Your task to perform on an android device: Show me popular games on the Play Store Image 0: 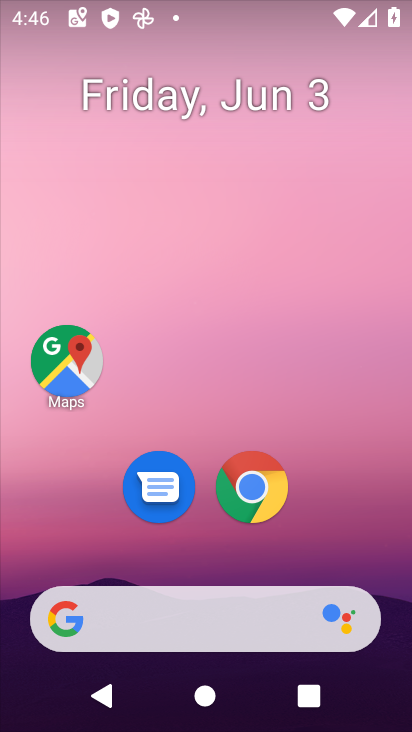
Step 0: click (288, 105)
Your task to perform on an android device: Show me popular games on the Play Store Image 1: 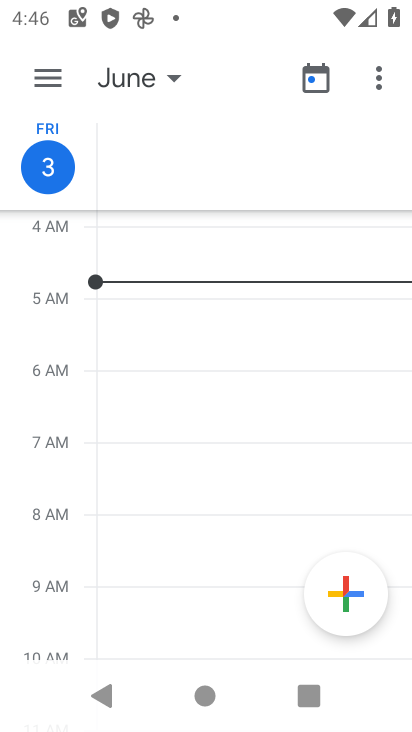
Step 1: press home button
Your task to perform on an android device: Show me popular games on the Play Store Image 2: 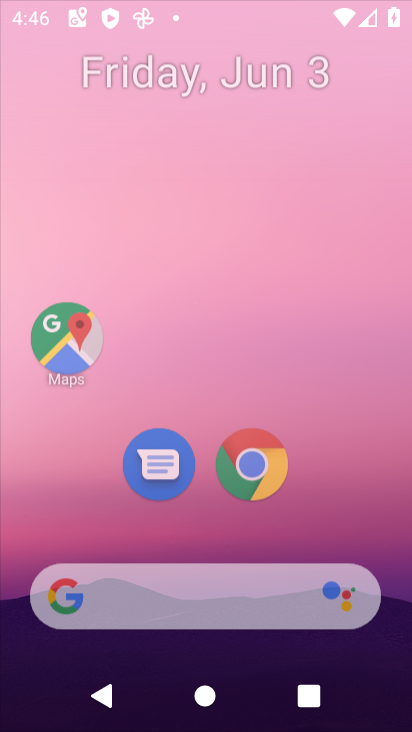
Step 2: drag from (219, 539) to (300, 63)
Your task to perform on an android device: Show me popular games on the Play Store Image 3: 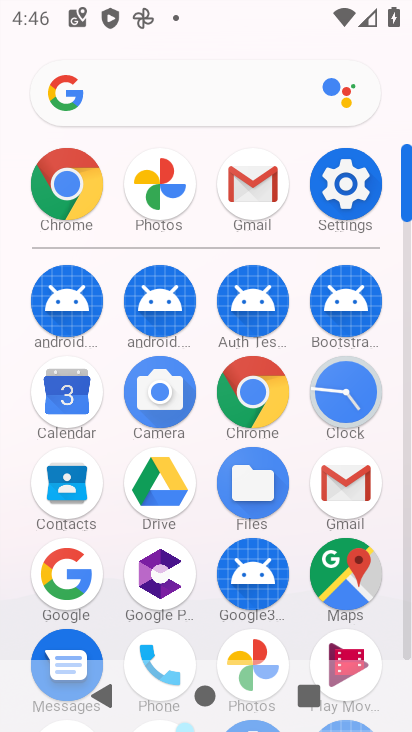
Step 3: drag from (197, 531) to (245, 106)
Your task to perform on an android device: Show me popular games on the Play Store Image 4: 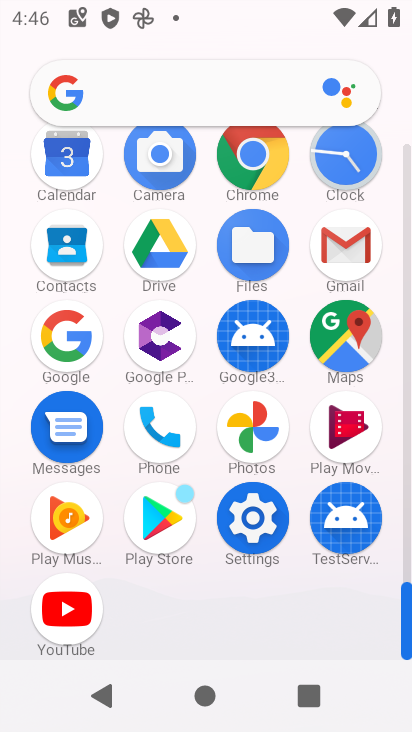
Step 4: click (155, 525)
Your task to perform on an android device: Show me popular games on the Play Store Image 5: 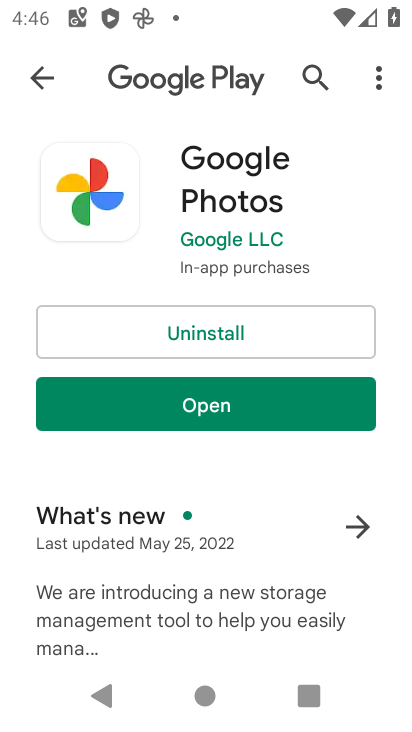
Step 5: drag from (214, 491) to (253, 304)
Your task to perform on an android device: Show me popular games on the Play Store Image 6: 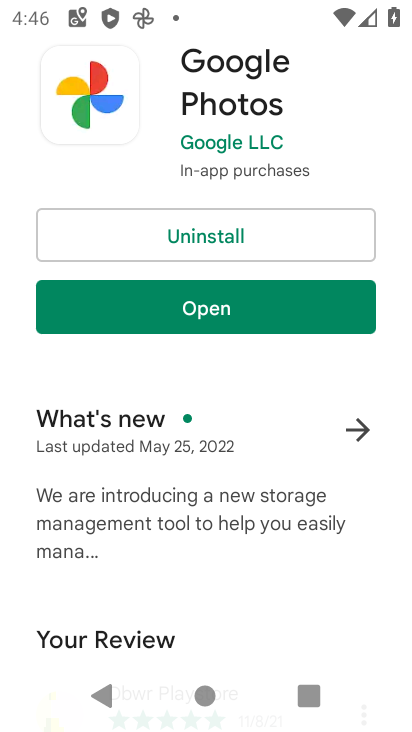
Step 6: press back button
Your task to perform on an android device: Show me popular games on the Play Store Image 7: 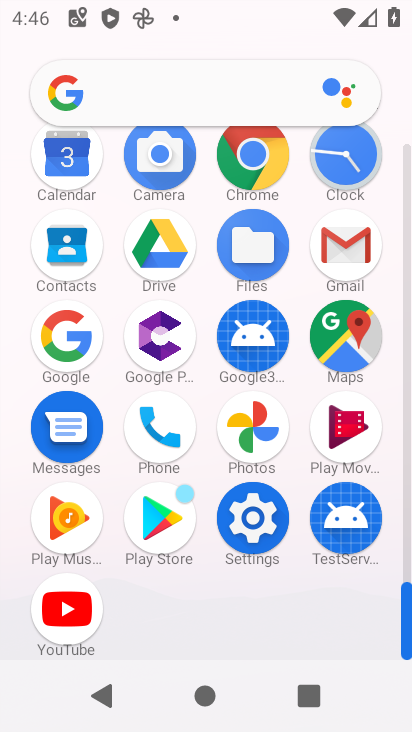
Step 7: click (175, 520)
Your task to perform on an android device: Show me popular games on the Play Store Image 8: 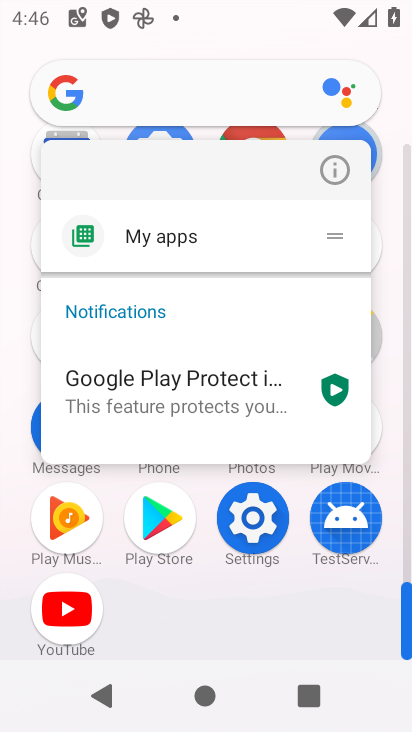
Step 8: click (331, 182)
Your task to perform on an android device: Show me popular games on the Play Store Image 9: 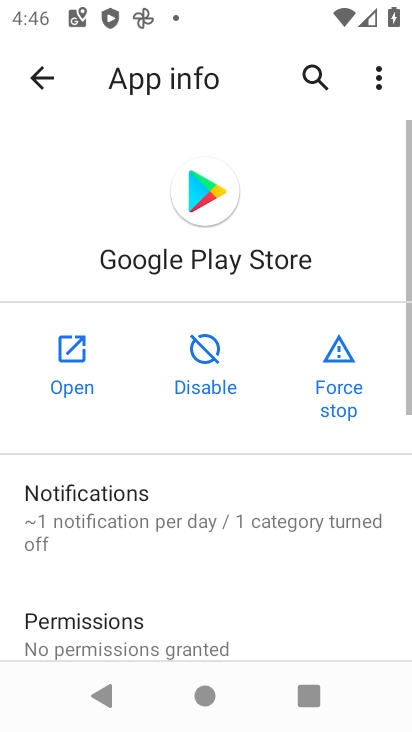
Step 9: click (96, 354)
Your task to perform on an android device: Show me popular games on the Play Store Image 10: 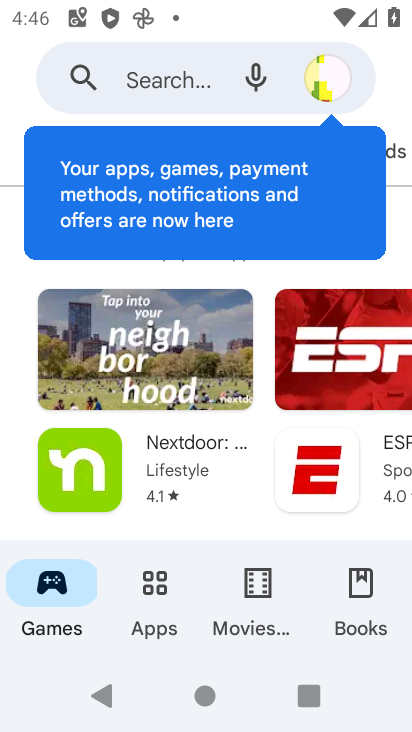
Step 10: drag from (251, 480) to (301, 55)
Your task to perform on an android device: Show me popular games on the Play Store Image 11: 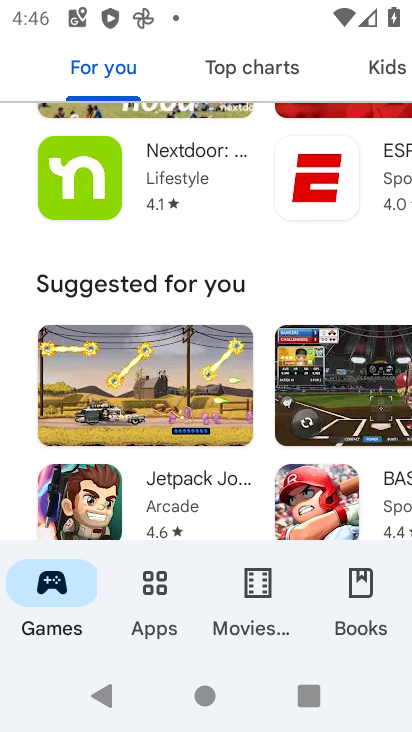
Step 11: drag from (233, 510) to (192, 167)
Your task to perform on an android device: Show me popular games on the Play Store Image 12: 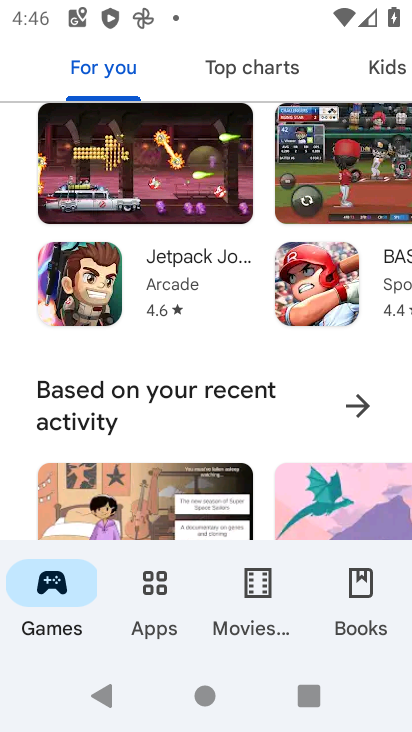
Step 12: drag from (235, 457) to (225, 145)
Your task to perform on an android device: Show me popular games on the Play Store Image 13: 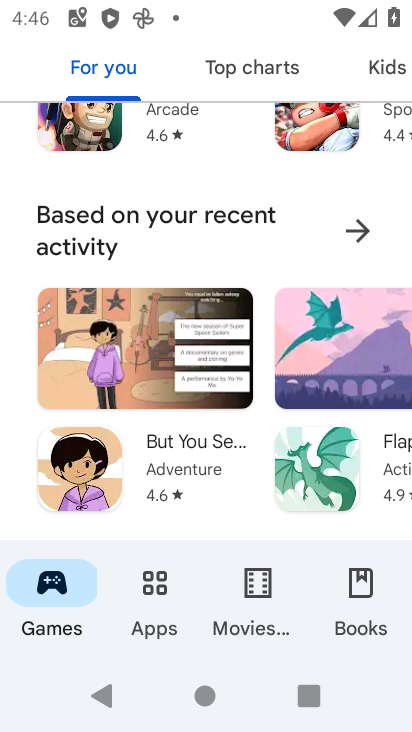
Step 13: drag from (253, 414) to (246, 169)
Your task to perform on an android device: Show me popular games on the Play Store Image 14: 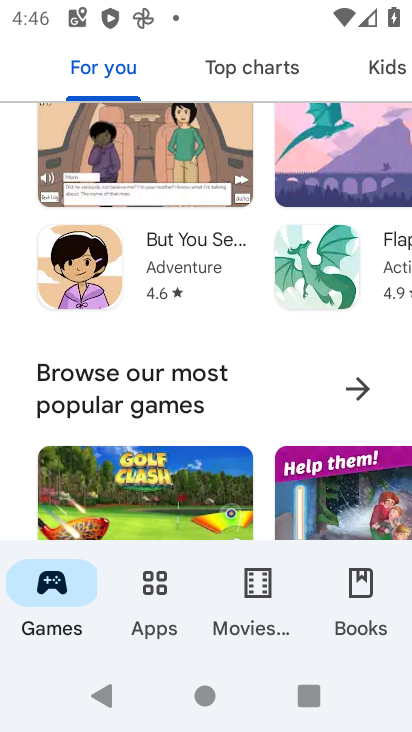
Step 14: drag from (270, 391) to (269, 283)
Your task to perform on an android device: Show me popular games on the Play Store Image 15: 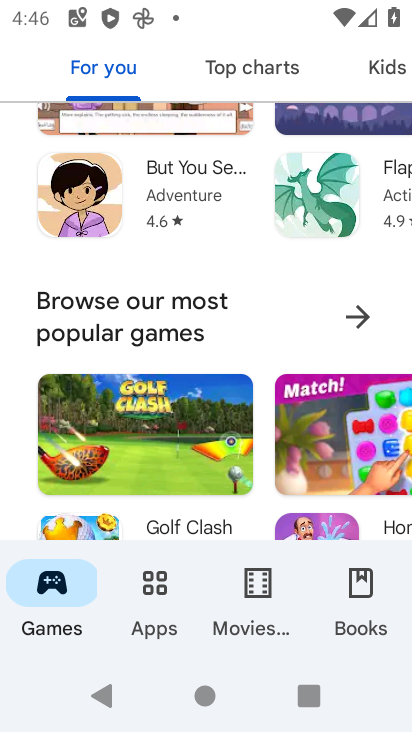
Step 15: click (366, 319)
Your task to perform on an android device: Show me popular games on the Play Store Image 16: 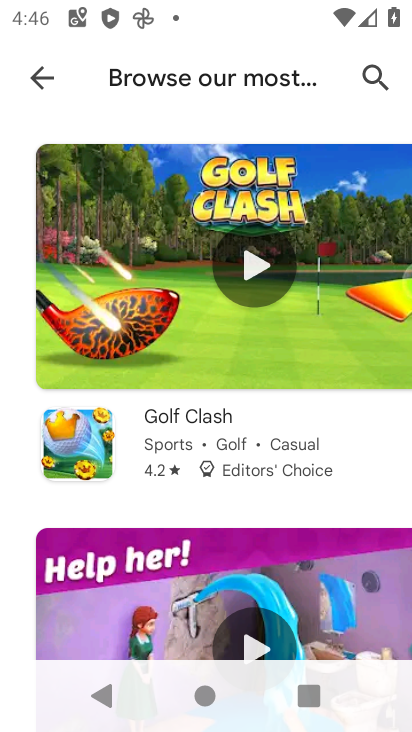
Step 16: task complete